Your task to perform on an android device: Open Reddit.com Image 0: 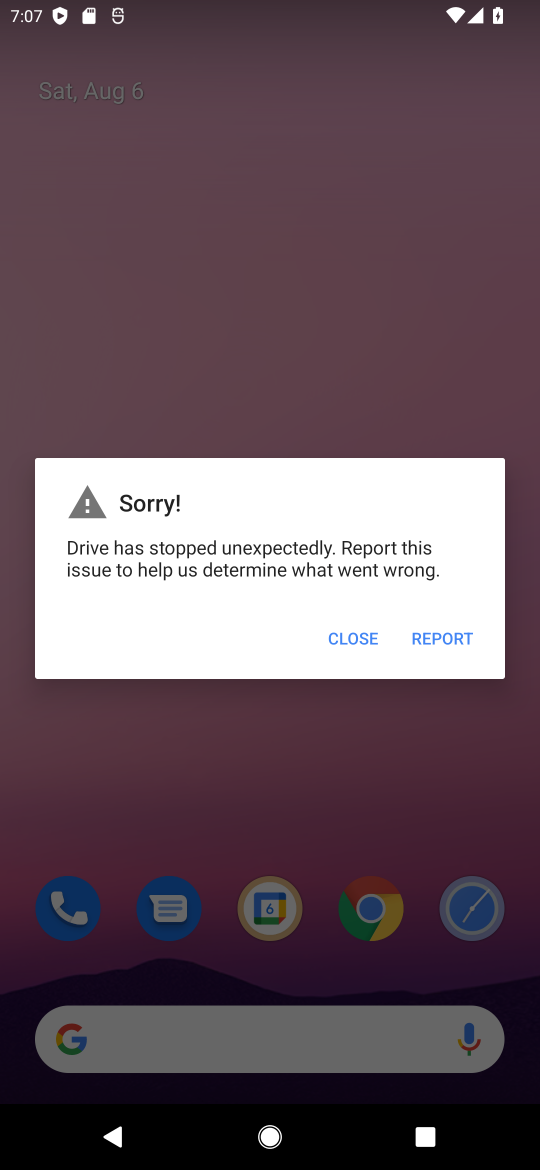
Step 0: press home button
Your task to perform on an android device: Open Reddit.com Image 1: 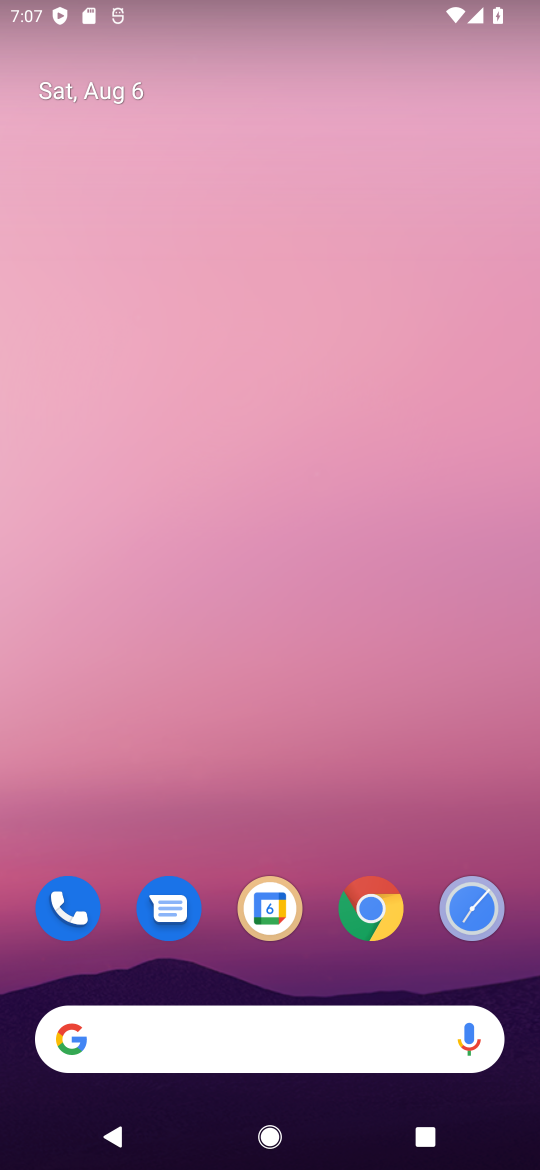
Step 1: click (368, 912)
Your task to perform on an android device: Open Reddit.com Image 2: 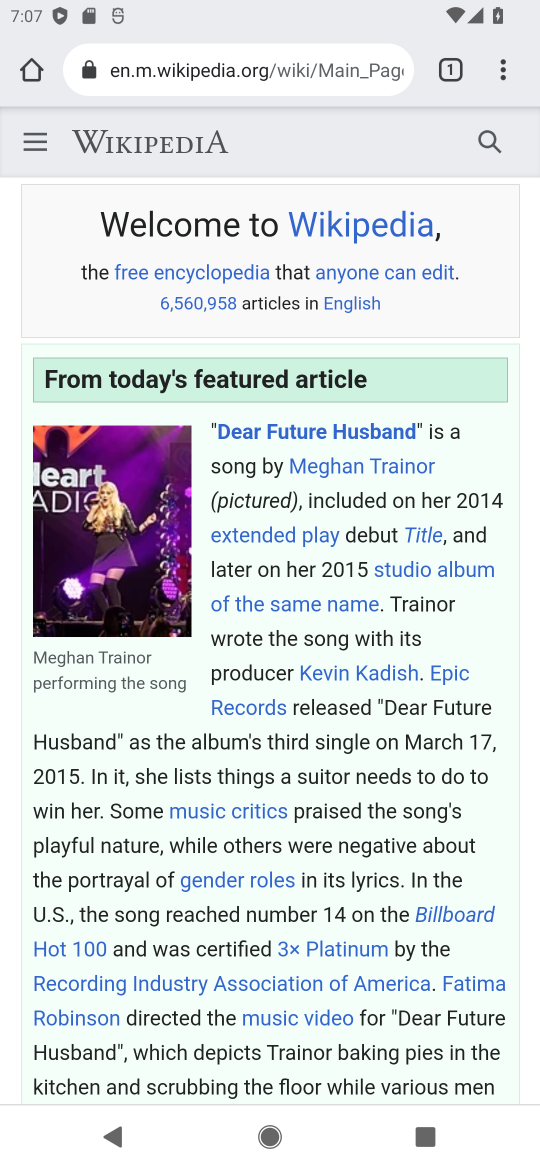
Step 2: click (271, 84)
Your task to perform on an android device: Open Reddit.com Image 3: 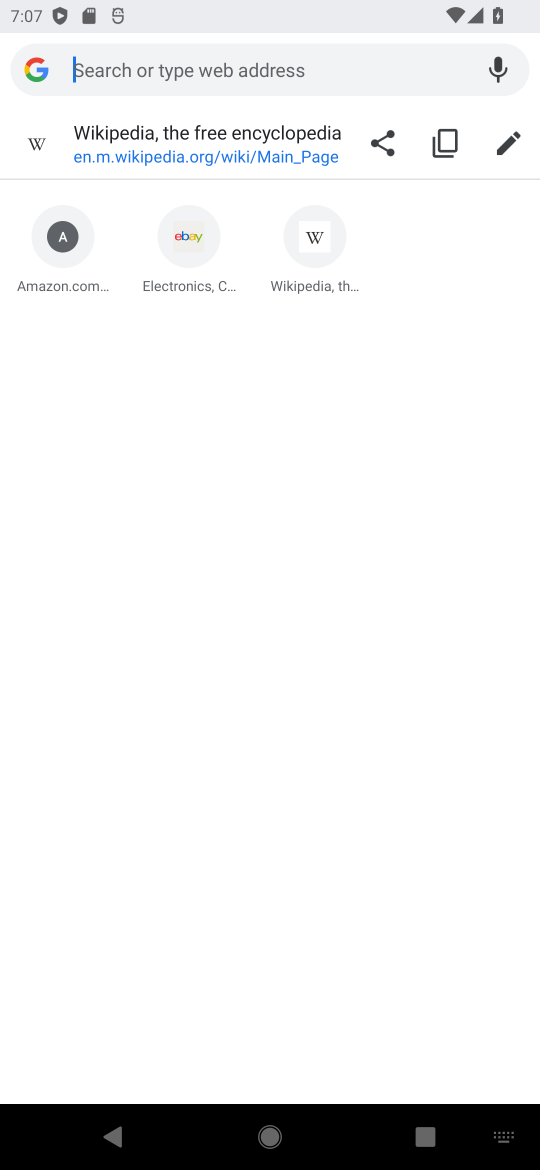
Step 3: type "reddit.com"
Your task to perform on an android device: Open Reddit.com Image 4: 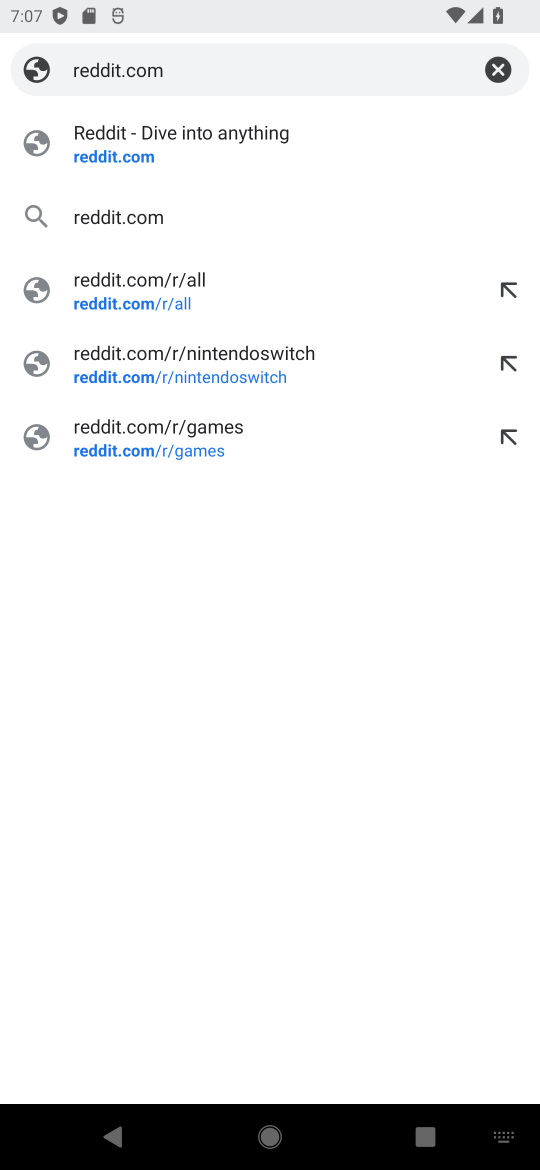
Step 4: click (222, 132)
Your task to perform on an android device: Open Reddit.com Image 5: 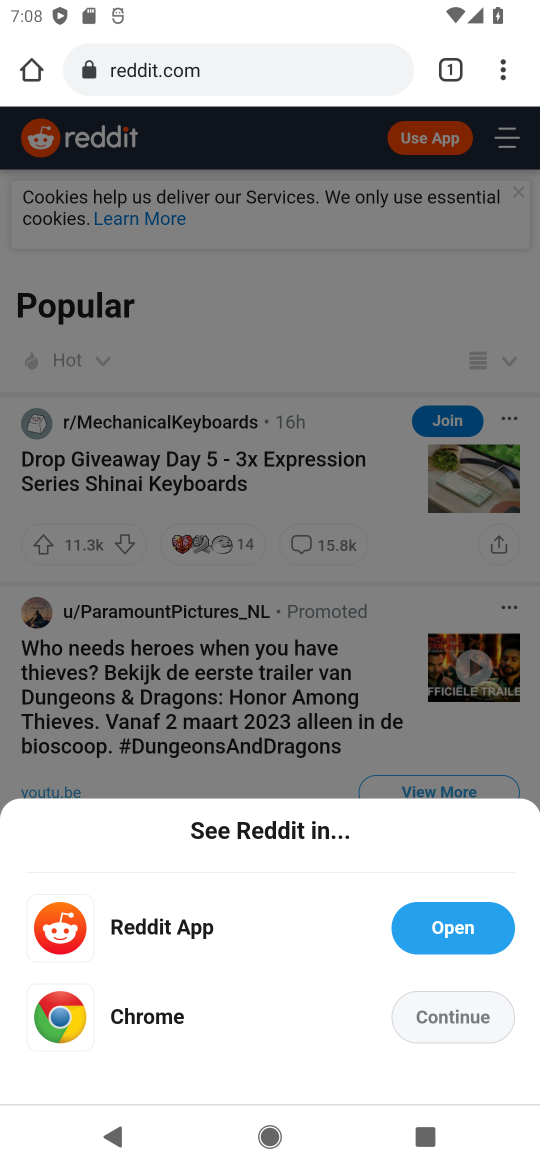
Step 5: click (472, 1021)
Your task to perform on an android device: Open Reddit.com Image 6: 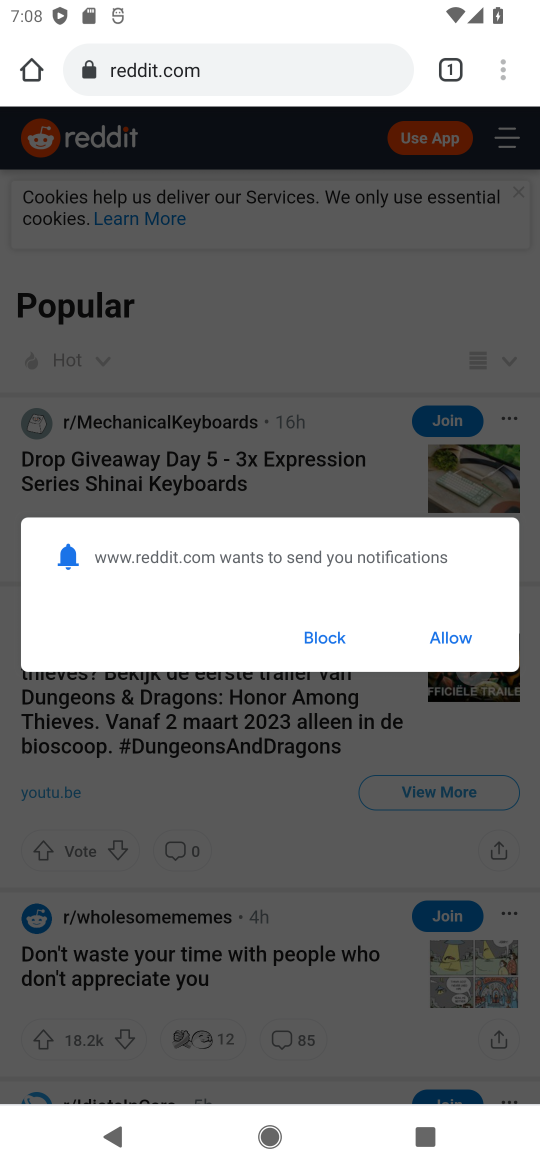
Step 6: click (437, 629)
Your task to perform on an android device: Open Reddit.com Image 7: 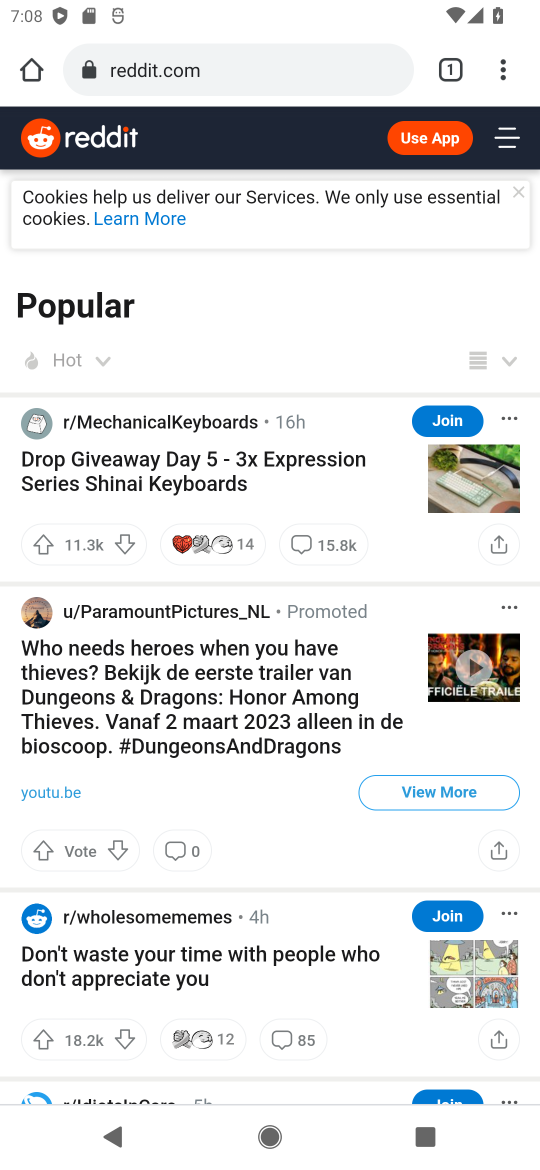
Step 7: task complete